Your task to perform on an android device: Open the calendar app, open the side menu, and click the "Day" option Image 0: 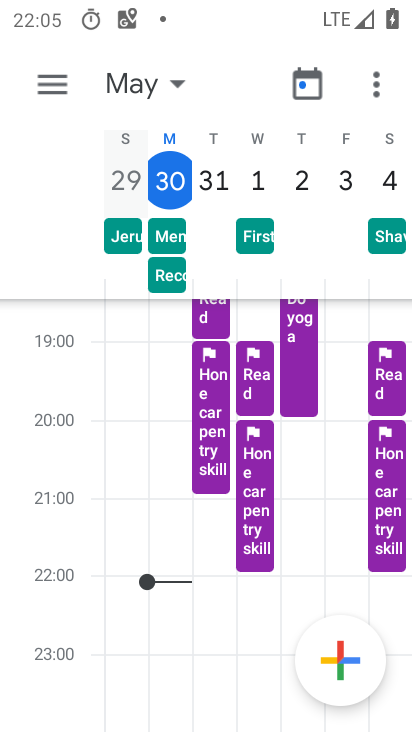
Step 0: click (50, 87)
Your task to perform on an android device: Open the calendar app, open the side menu, and click the "Day" option Image 1: 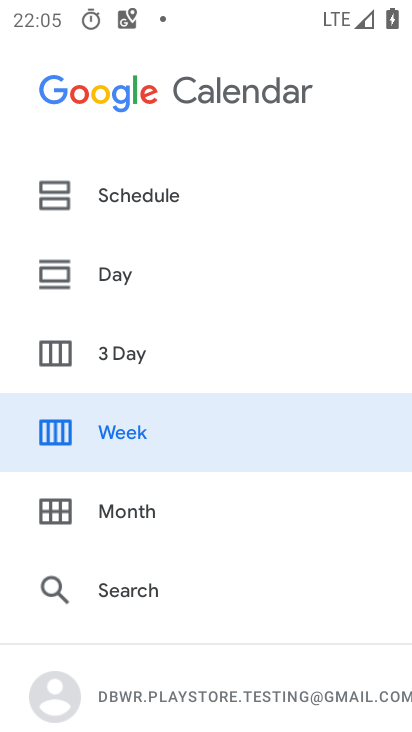
Step 1: click (124, 281)
Your task to perform on an android device: Open the calendar app, open the side menu, and click the "Day" option Image 2: 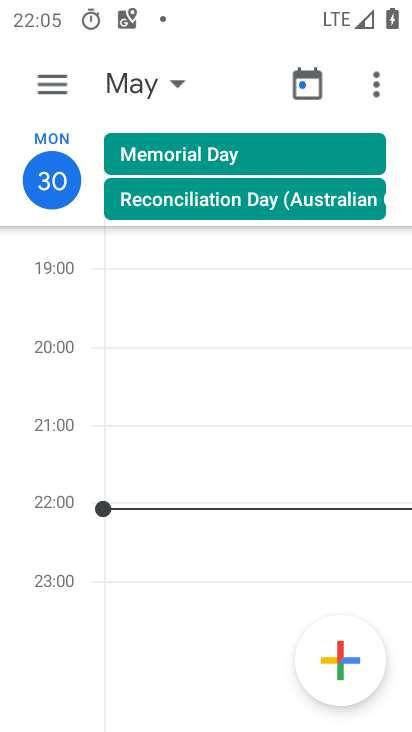
Step 2: task complete